Your task to perform on an android device: Open the phone app and click the voicemail tab. Image 0: 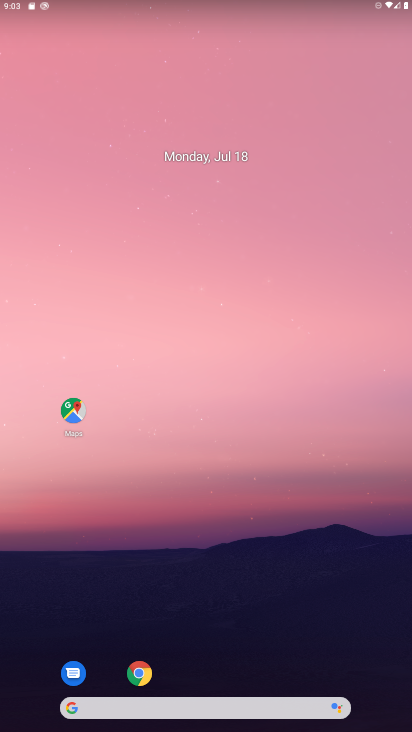
Step 0: press home button
Your task to perform on an android device: Open the phone app and click the voicemail tab. Image 1: 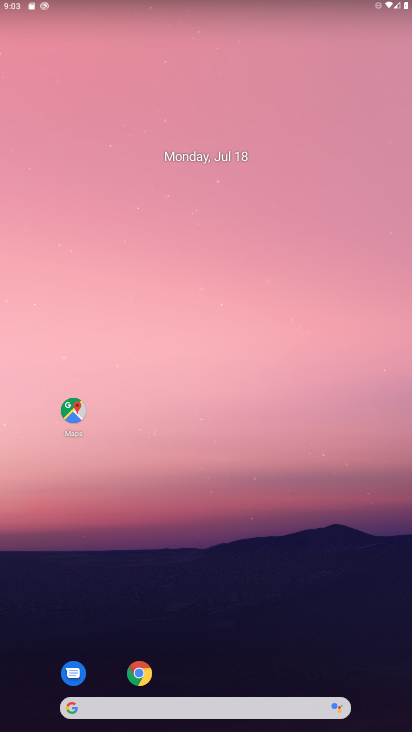
Step 1: drag from (239, 667) to (224, 99)
Your task to perform on an android device: Open the phone app and click the voicemail tab. Image 2: 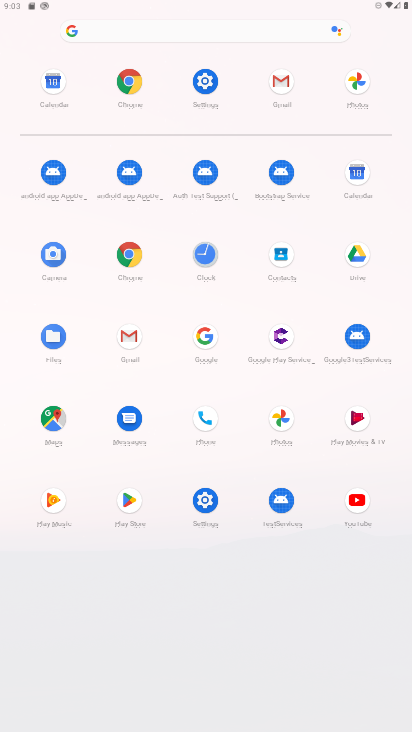
Step 2: click (200, 411)
Your task to perform on an android device: Open the phone app and click the voicemail tab. Image 3: 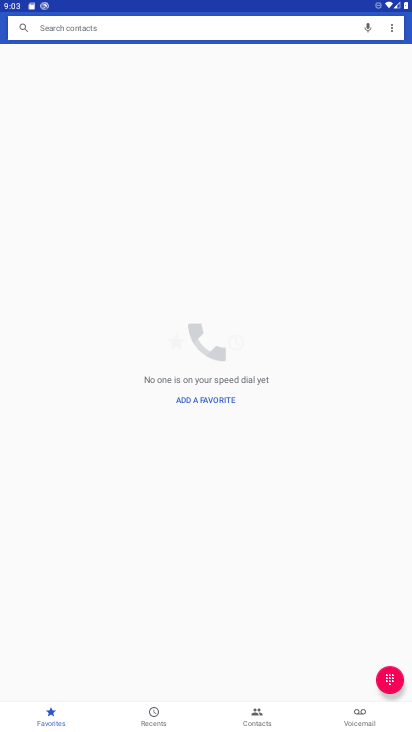
Step 3: click (358, 711)
Your task to perform on an android device: Open the phone app and click the voicemail tab. Image 4: 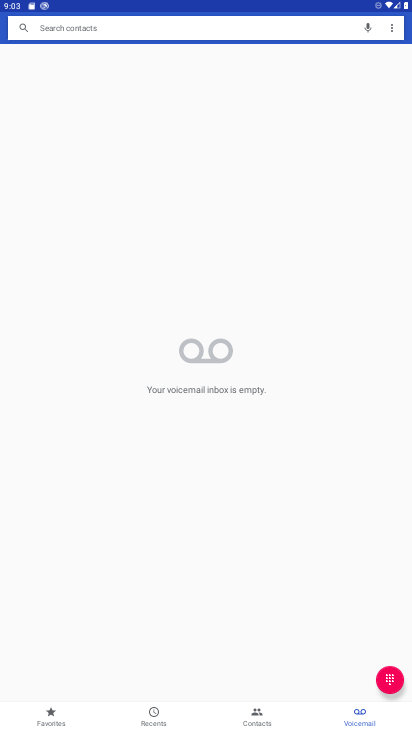
Step 4: task complete